Your task to perform on an android device: Open Youtube and go to the subscriptions tab Image 0: 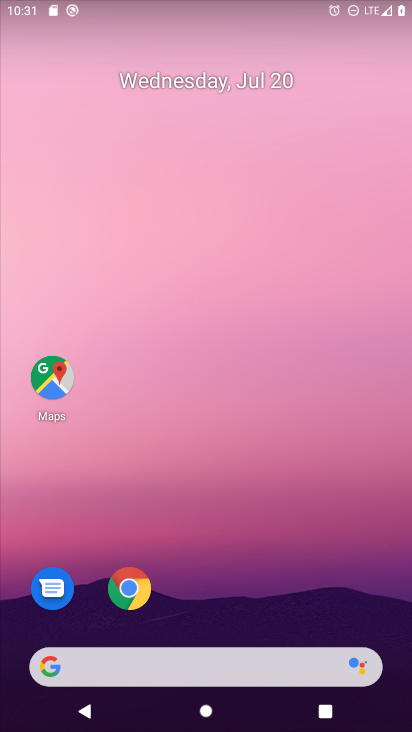
Step 0: drag from (160, 619) to (229, 23)
Your task to perform on an android device: Open Youtube and go to the subscriptions tab Image 1: 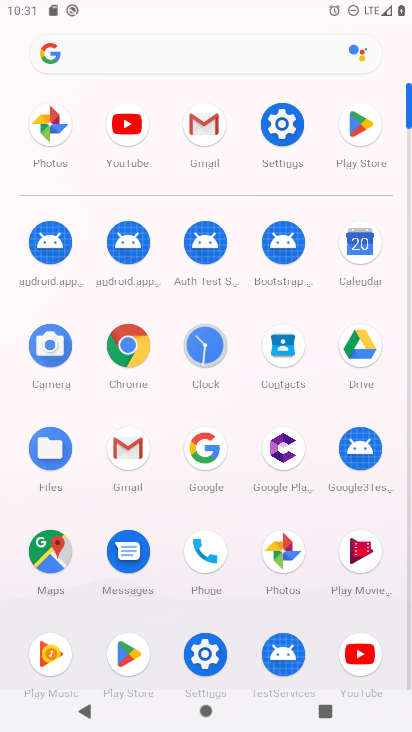
Step 1: click (113, 114)
Your task to perform on an android device: Open Youtube and go to the subscriptions tab Image 2: 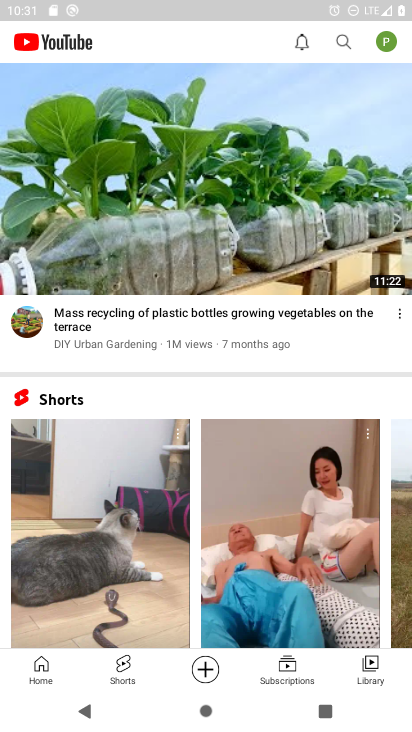
Step 2: click (278, 676)
Your task to perform on an android device: Open Youtube and go to the subscriptions tab Image 3: 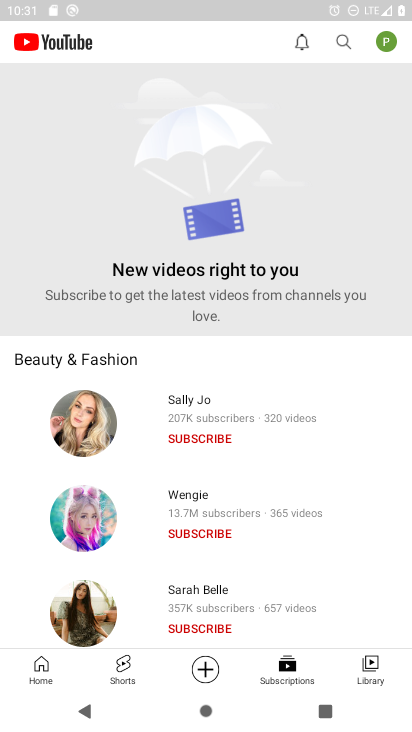
Step 3: task complete